Your task to perform on an android device: Open calendar and show me the first week of next month Image 0: 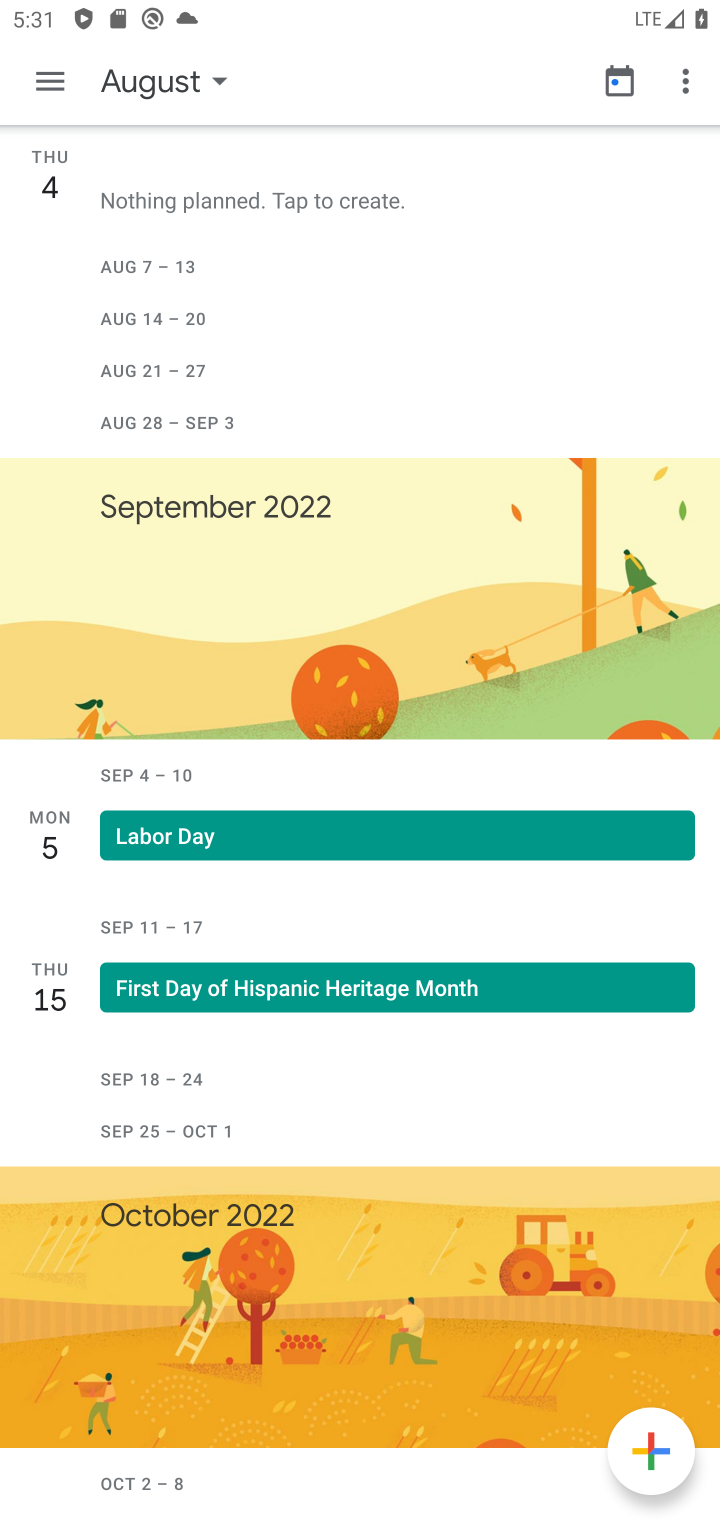
Step 0: click (202, 82)
Your task to perform on an android device: Open calendar and show me the first week of next month Image 1: 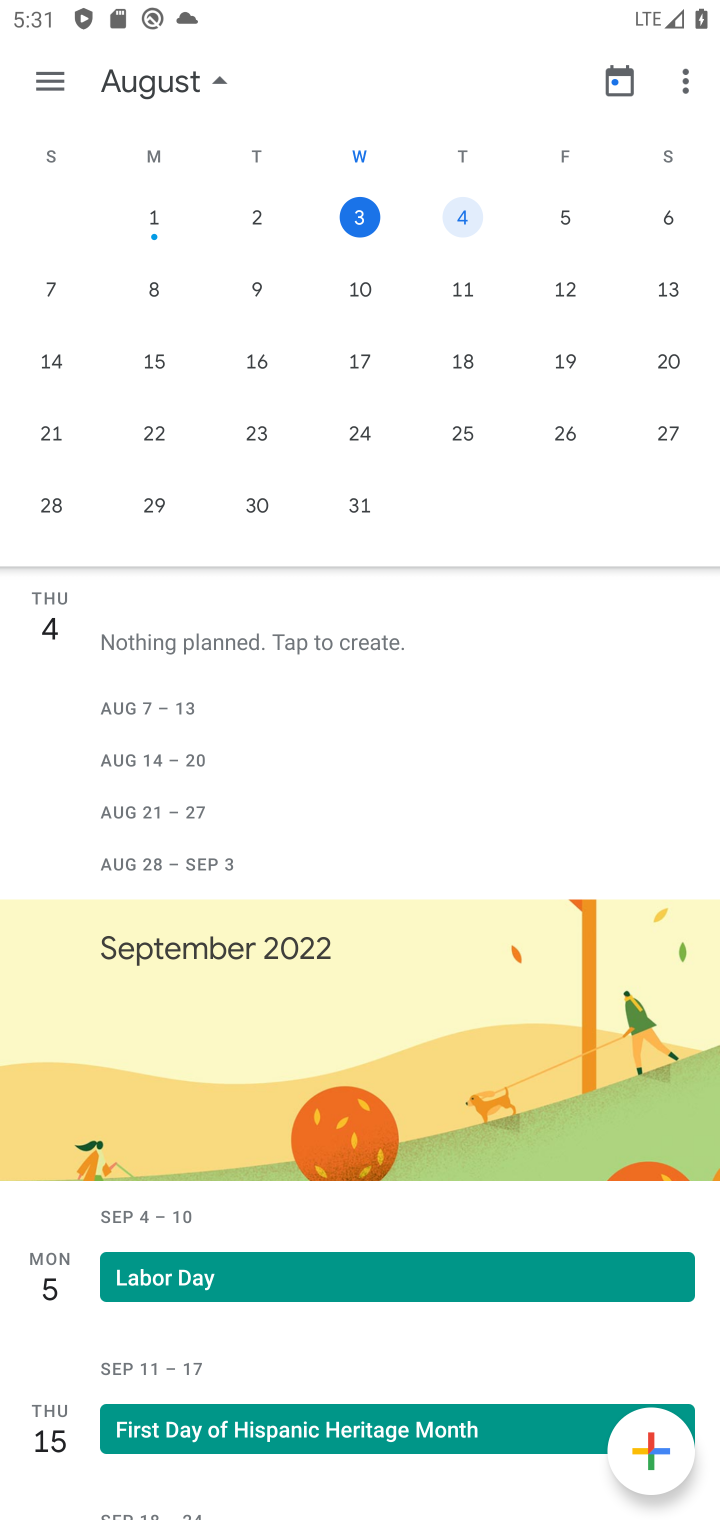
Step 1: drag from (674, 365) to (5, 347)
Your task to perform on an android device: Open calendar and show me the first week of next month Image 2: 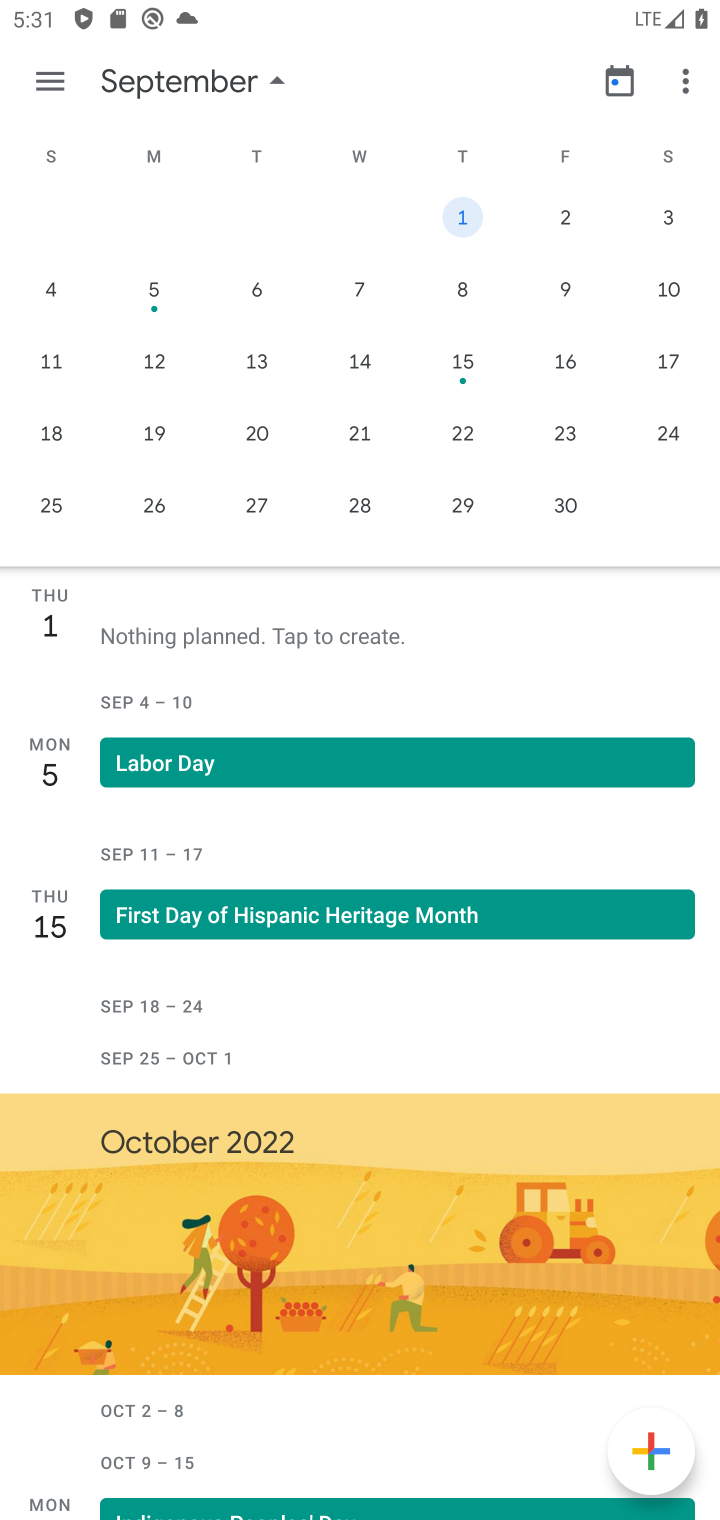
Step 2: click (459, 207)
Your task to perform on an android device: Open calendar and show me the first week of next month Image 3: 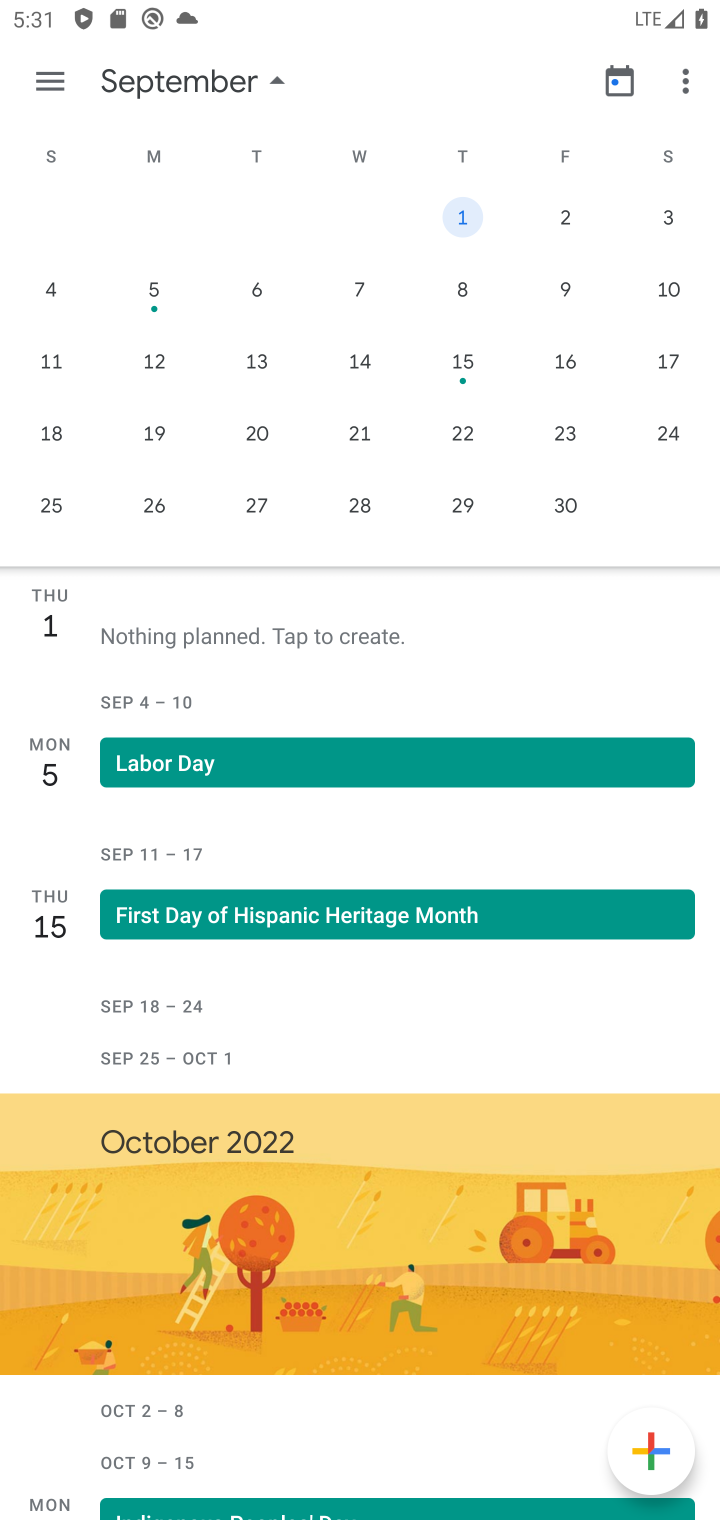
Step 3: task complete